Your task to perform on an android device: Add "acer predator" to the cart on bestbuy, then select checkout. Image 0: 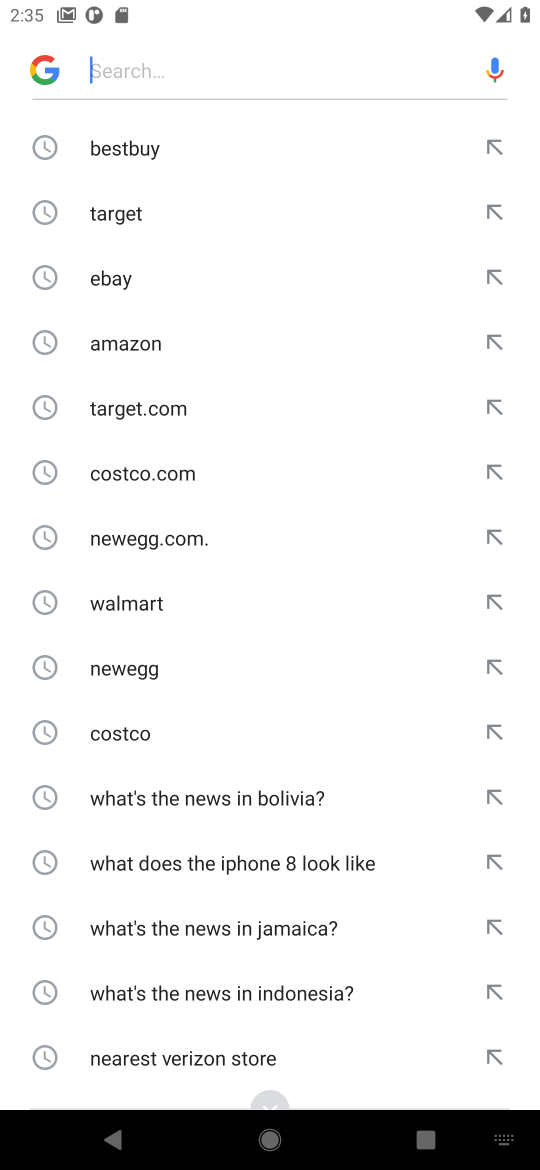
Step 0: press home button
Your task to perform on an android device: Add "acer predator" to the cart on bestbuy, then select checkout. Image 1: 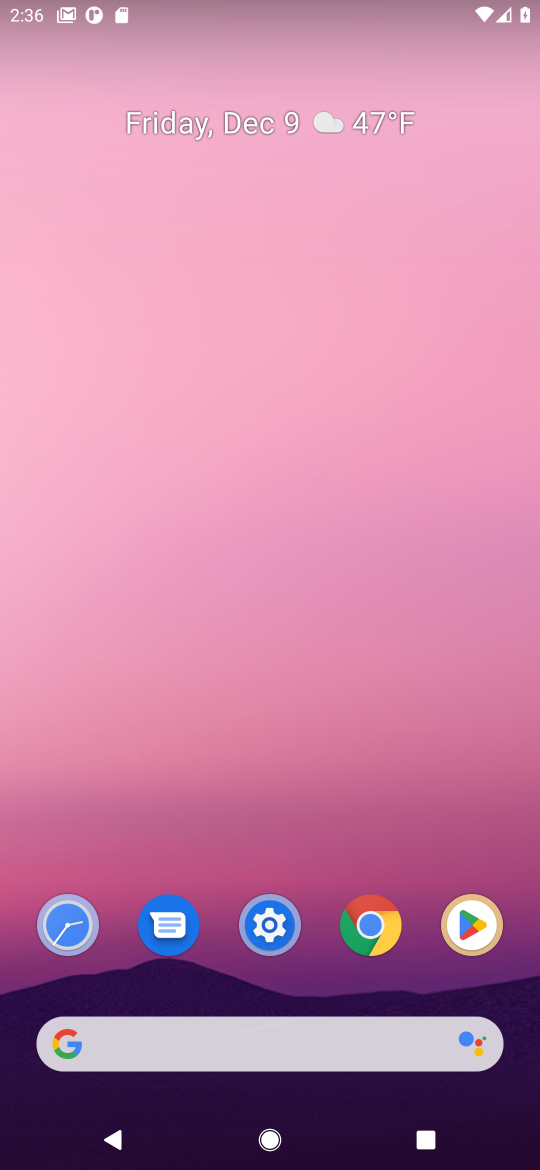
Step 1: click (379, 915)
Your task to perform on an android device: Add "acer predator" to the cart on bestbuy, then select checkout. Image 2: 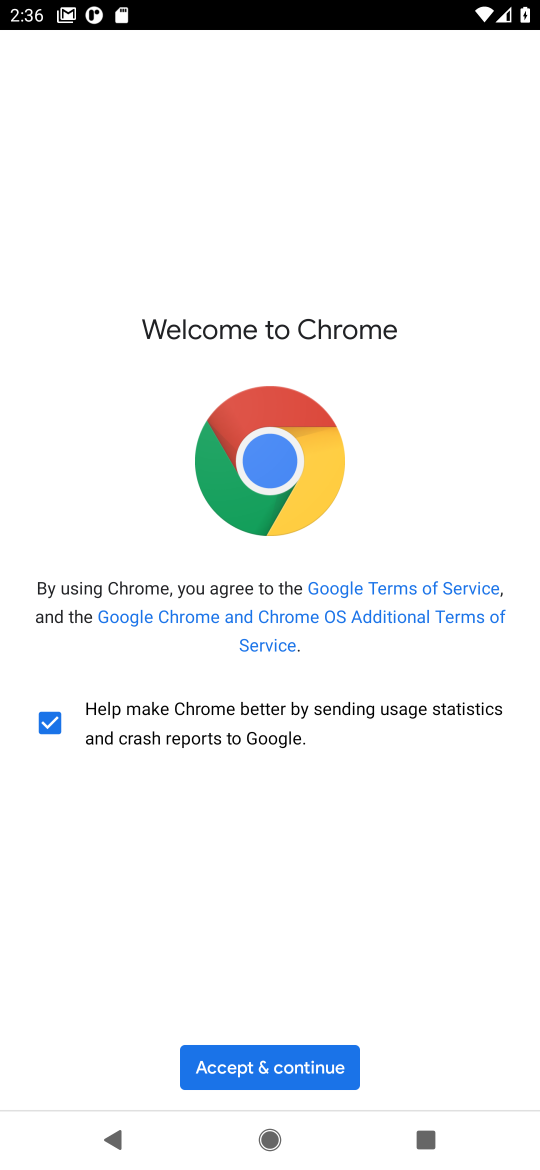
Step 2: click (283, 1062)
Your task to perform on an android device: Add "acer predator" to the cart on bestbuy, then select checkout. Image 3: 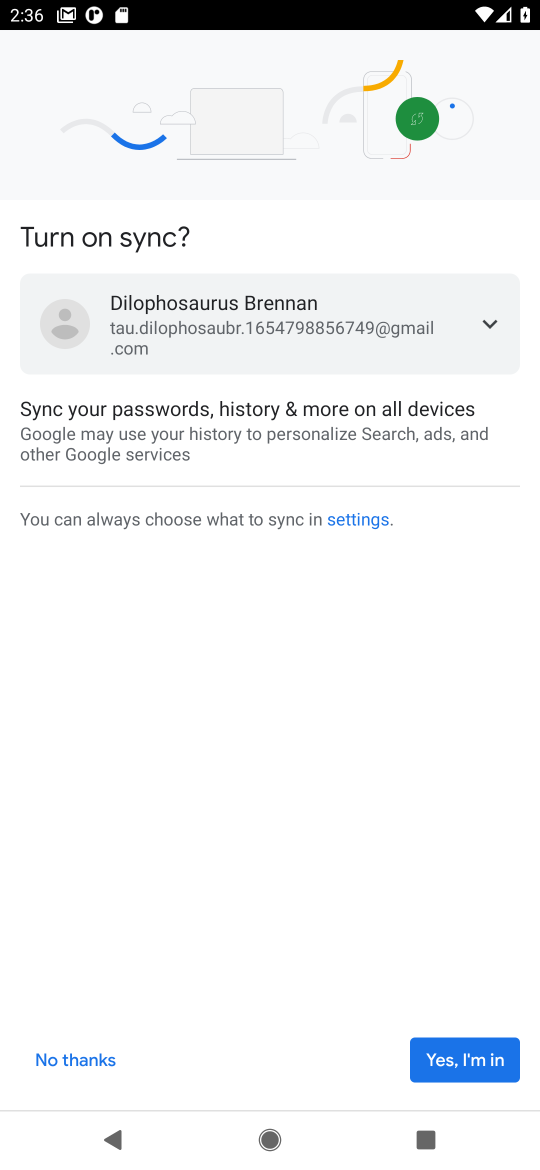
Step 3: click (470, 1058)
Your task to perform on an android device: Add "acer predator" to the cart on bestbuy, then select checkout. Image 4: 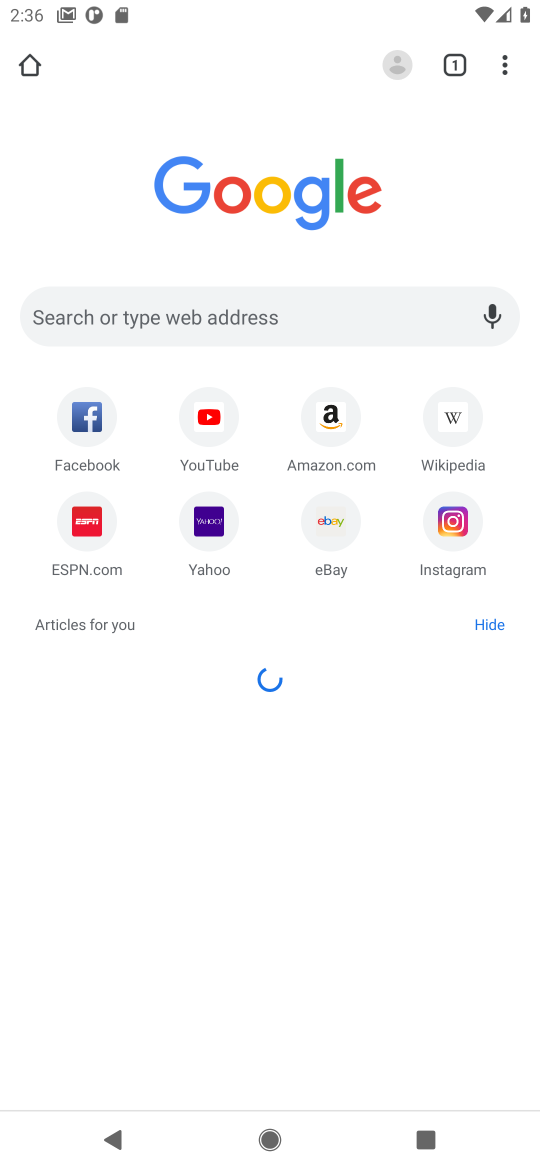
Step 4: click (306, 306)
Your task to perform on an android device: Add "acer predator" to the cart on bestbuy, then select checkout. Image 5: 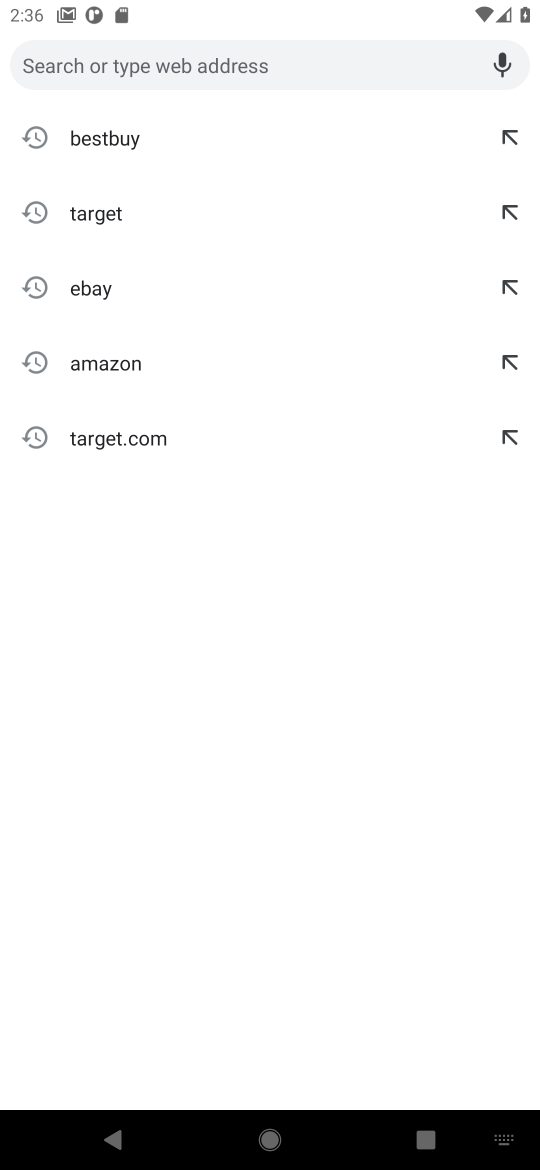
Step 5: click (135, 150)
Your task to perform on an android device: Add "acer predator" to the cart on bestbuy, then select checkout. Image 6: 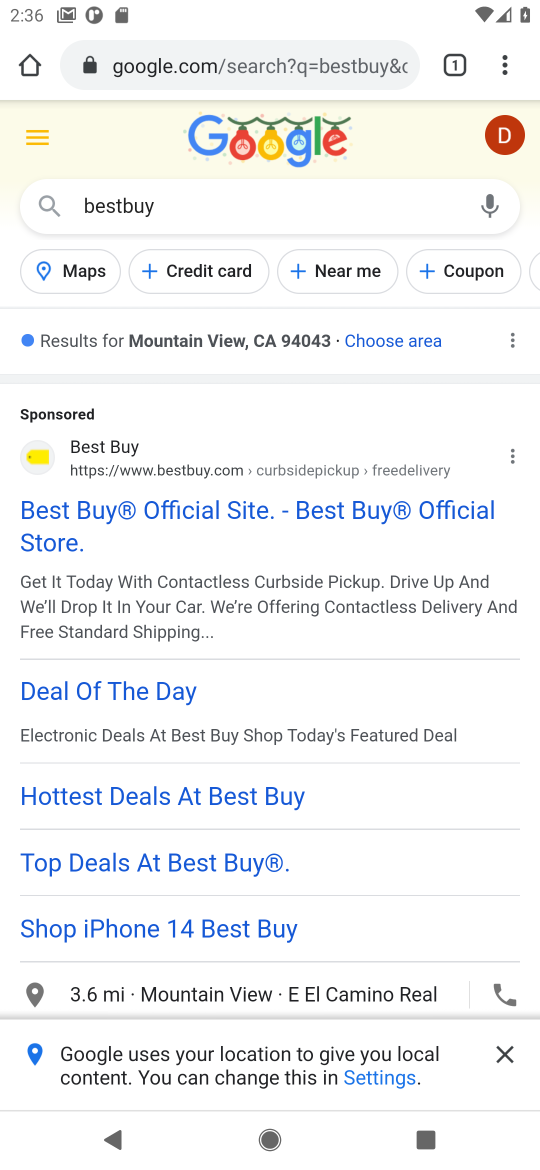
Step 6: click (155, 518)
Your task to perform on an android device: Add "acer predator" to the cart on bestbuy, then select checkout. Image 7: 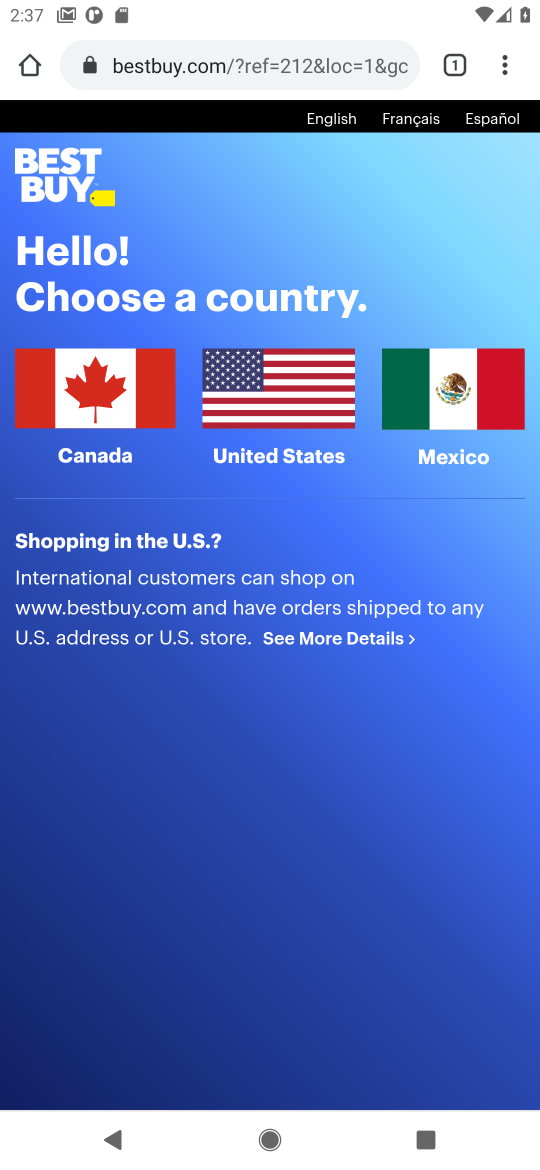
Step 7: click (285, 380)
Your task to perform on an android device: Add "acer predator" to the cart on bestbuy, then select checkout. Image 8: 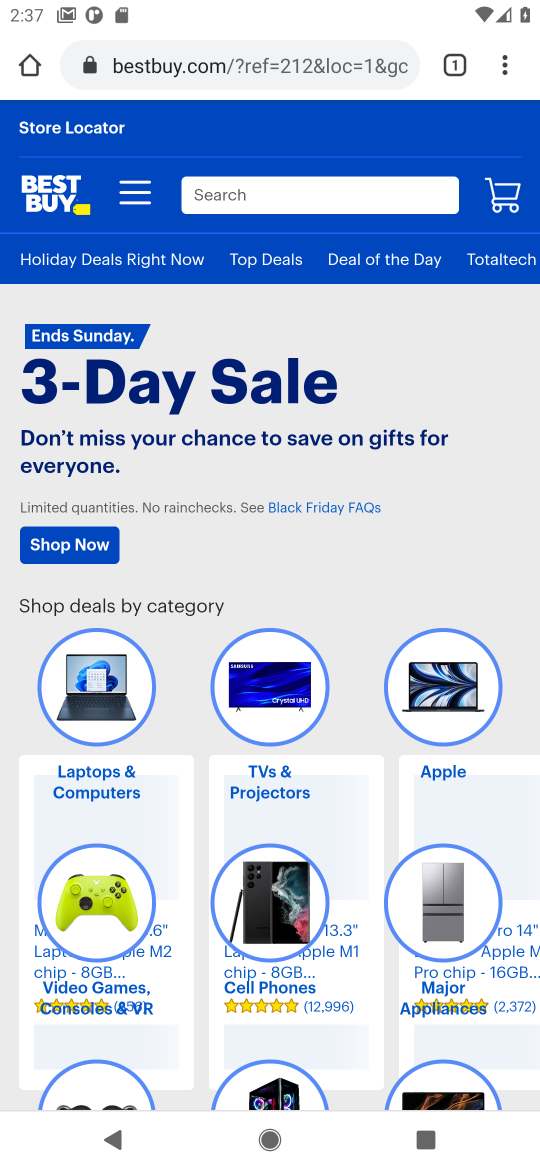
Step 8: click (342, 198)
Your task to perform on an android device: Add "acer predator" to the cart on bestbuy, then select checkout. Image 9: 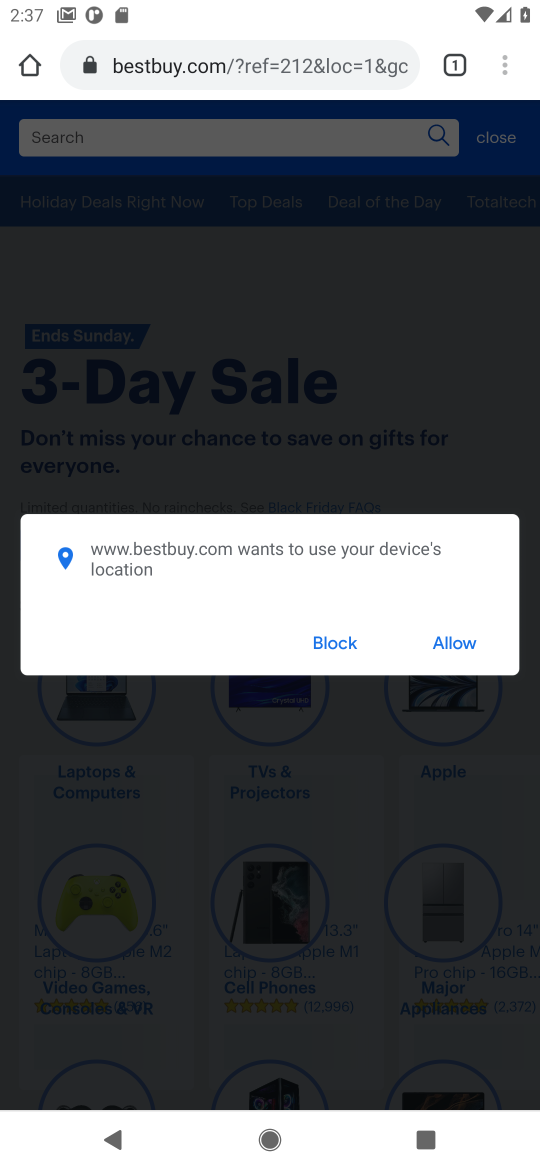
Step 9: type "ACER PREDATOR"
Your task to perform on an android device: Add "acer predator" to the cart on bestbuy, then select checkout. Image 10: 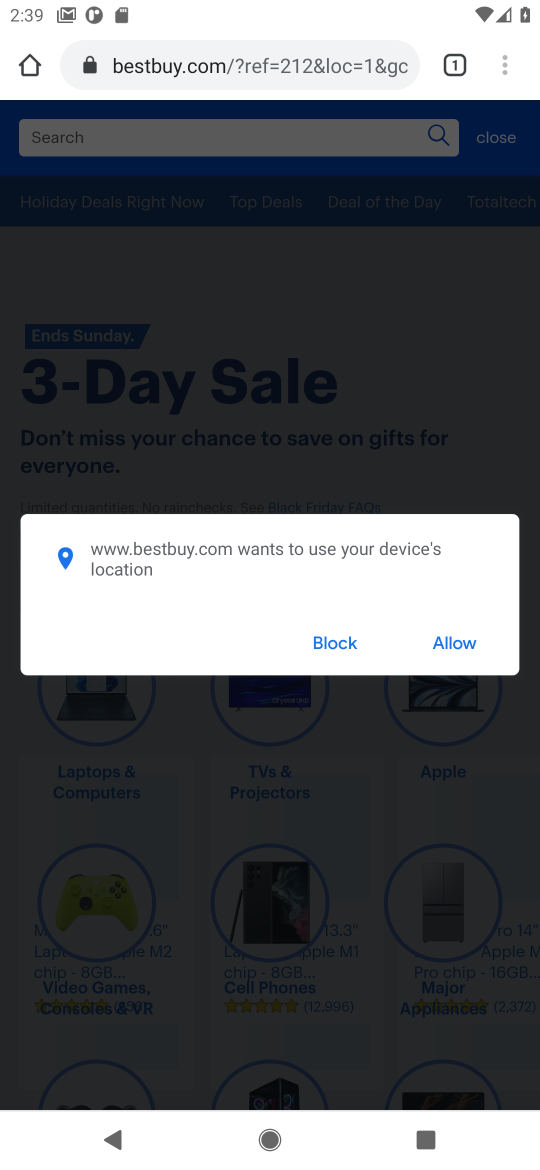
Step 10: click (334, 647)
Your task to perform on an android device: Add "acer predator" to the cart on bestbuy, then select checkout. Image 11: 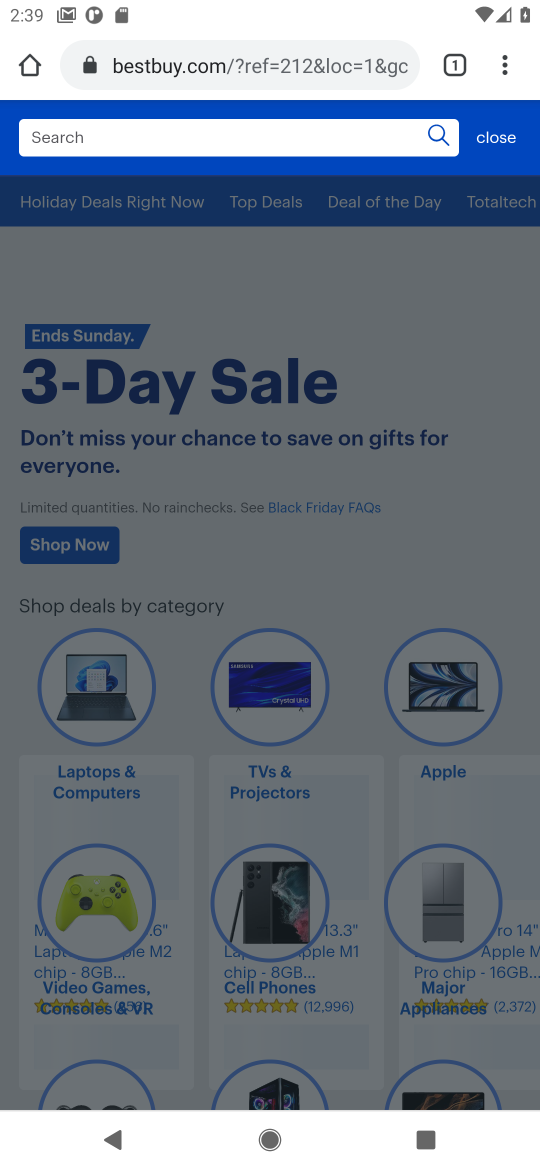
Step 11: type "acer predator"
Your task to perform on an android device: Add "acer predator" to the cart on bestbuy, then select checkout. Image 12: 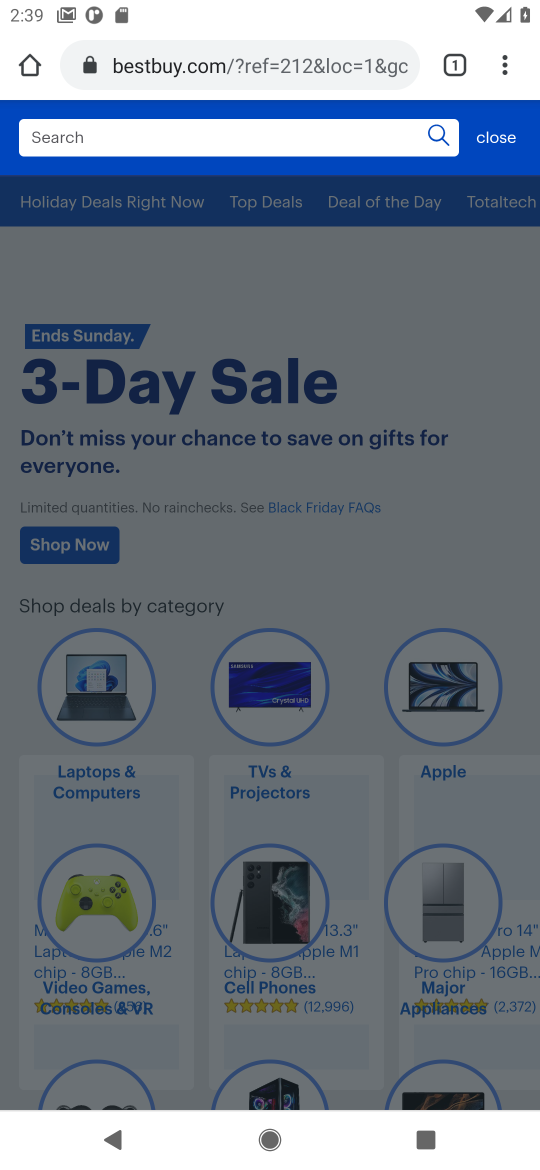
Step 12: task complete